Your task to perform on an android device: turn on showing notifications on the lock screen Image 0: 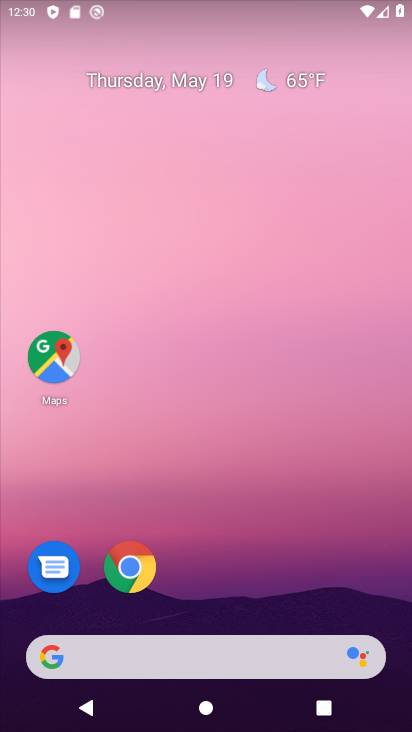
Step 0: drag from (310, 603) to (227, 89)
Your task to perform on an android device: turn on showing notifications on the lock screen Image 1: 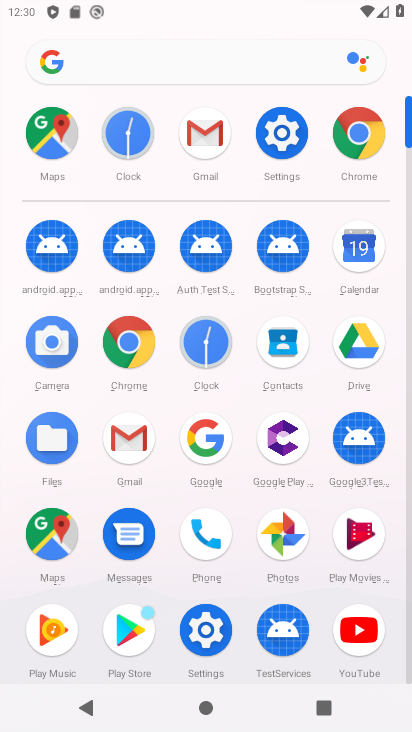
Step 1: click (289, 132)
Your task to perform on an android device: turn on showing notifications on the lock screen Image 2: 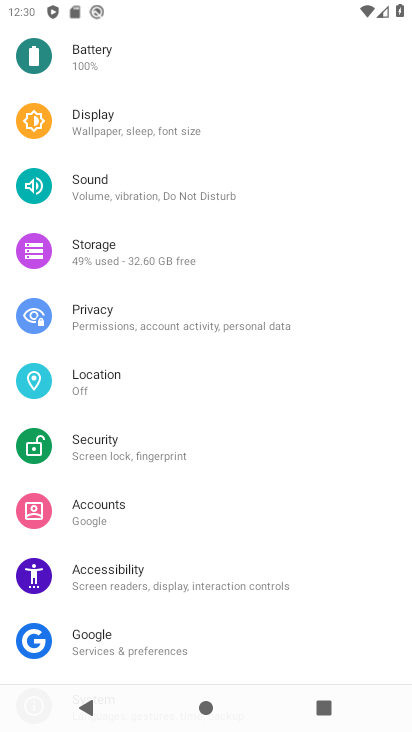
Step 2: drag from (256, 164) to (270, 460)
Your task to perform on an android device: turn on showing notifications on the lock screen Image 3: 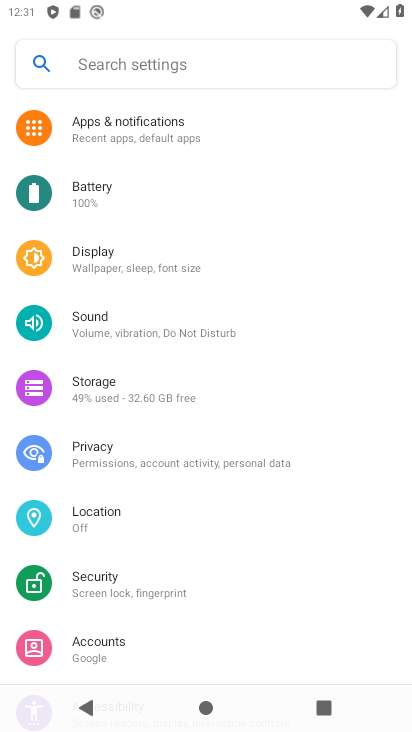
Step 3: click (183, 127)
Your task to perform on an android device: turn on showing notifications on the lock screen Image 4: 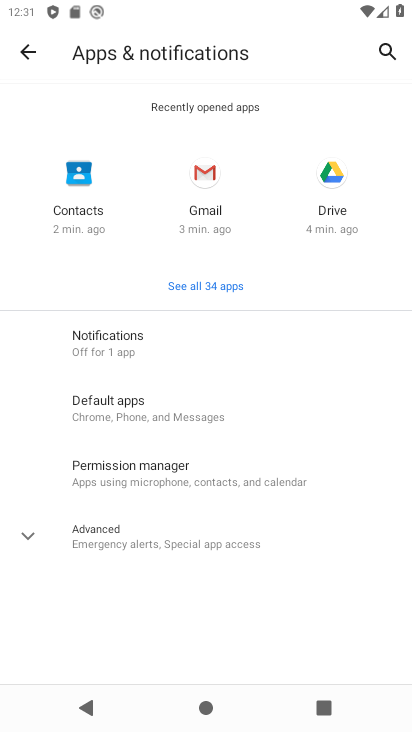
Step 4: click (161, 352)
Your task to perform on an android device: turn on showing notifications on the lock screen Image 5: 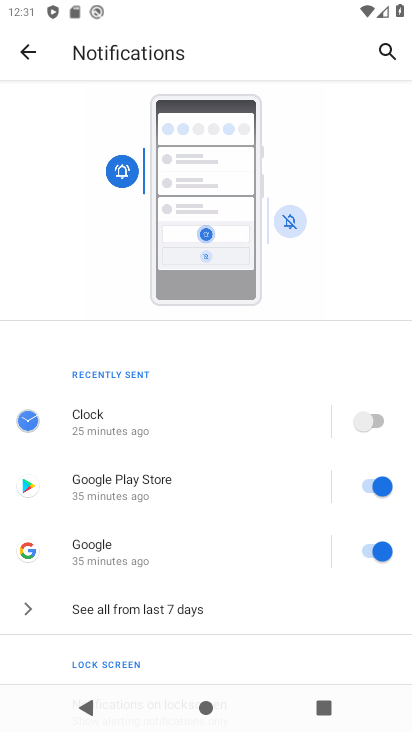
Step 5: drag from (222, 648) to (235, 346)
Your task to perform on an android device: turn on showing notifications on the lock screen Image 6: 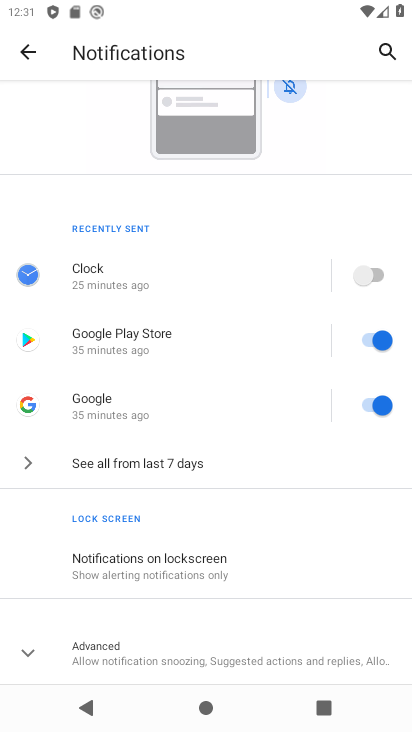
Step 6: click (230, 570)
Your task to perform on an android device: turn on showing notifications on the lock screen Image 7: 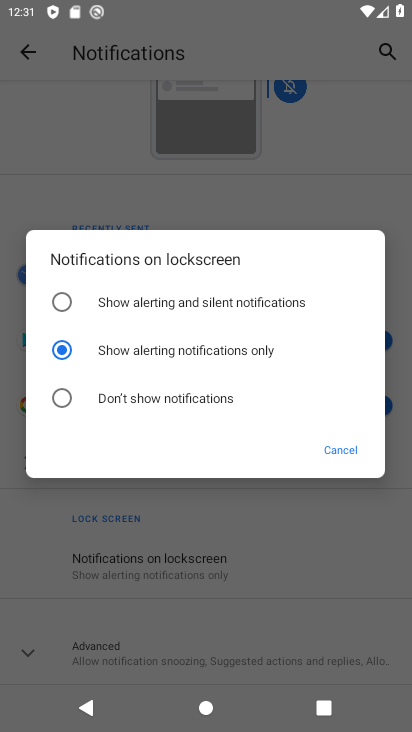
Step 7: click (65, 303)
Your task to perform on an android device: turn on showing notifications on the lock screen Image 8: 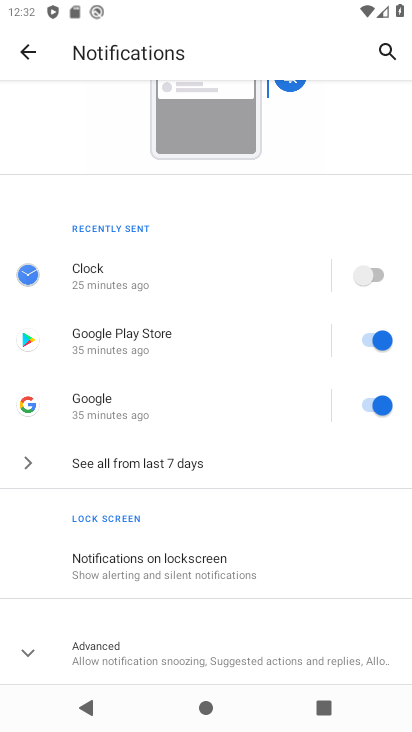
Step 8: click (258, 574)
Your task to perform on an android device: turn on showing notifications on the lock screen Image 9: 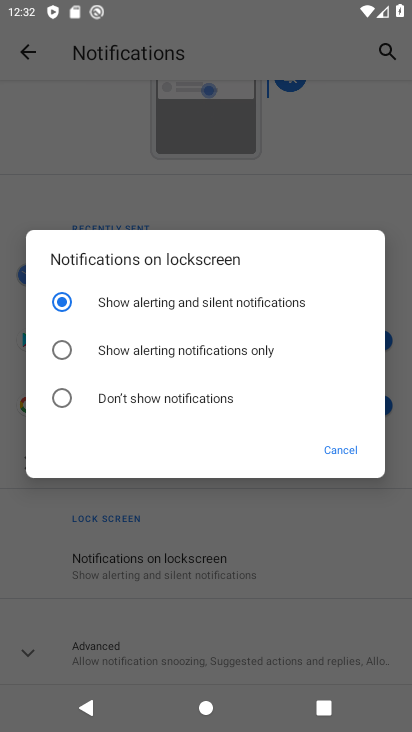
Step 9: task complete